Your task to perform on an android device: Open settings on Google Maps Image 0: 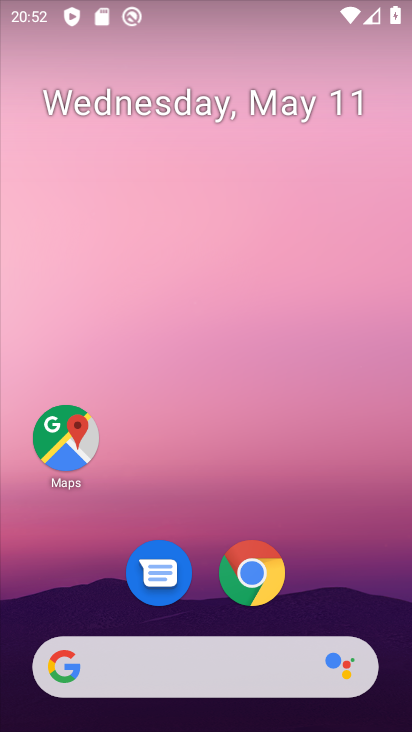
Step 0: click (73, 435)
Your task to perform on an android device: Open settings on Google Maps Image 1: 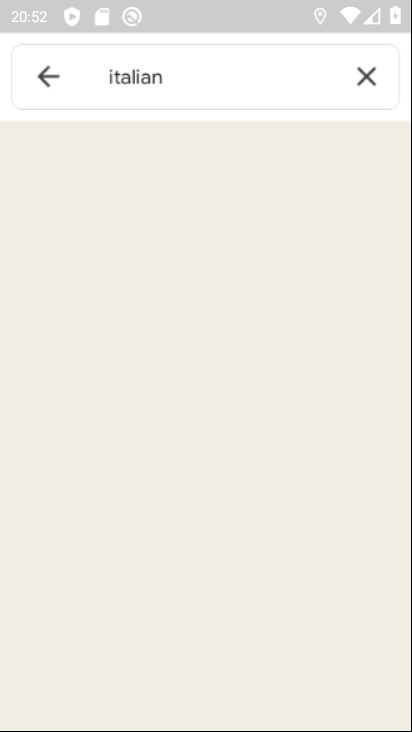
Step 1: click (358, 73)
Your task to perform on an android device: Open settings on Google Maps Image 2: 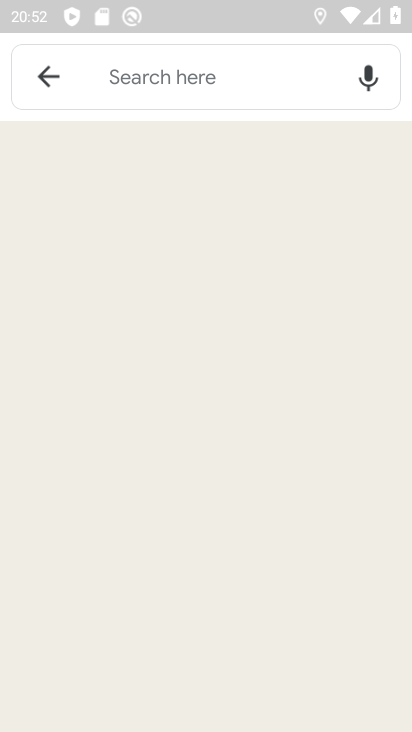
Step 2: click (31, 62)
Your task to perform on an android device: Open settings on Google Maps Image 3: 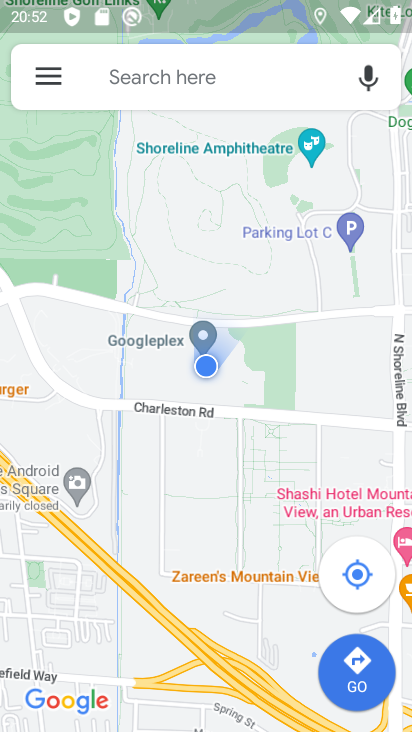
Step 3: click (62, 75)
Your task to perform on an android device: Open settings on Google Maps Image 4: 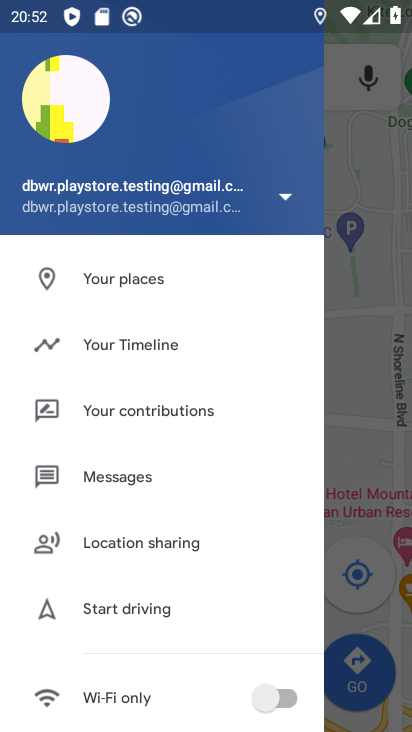
Step 4: drag from (129, 538) to (154, 224)
Your task to perform on an android device: Open settings on Google Maps Image 5: 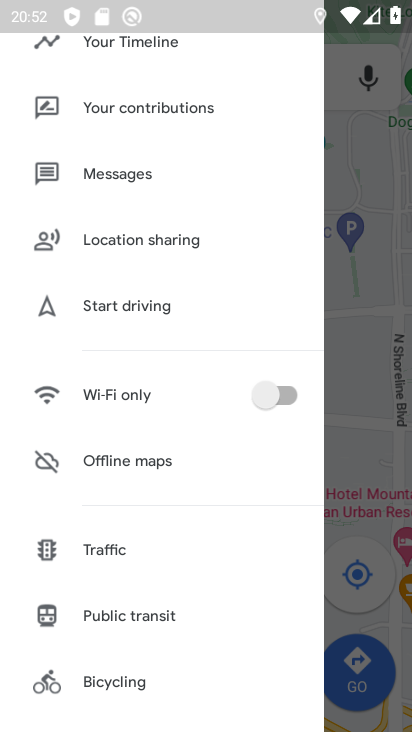
Step 5: drag from (129, 646) to (166, 386)
Your task to perform on an android device: Open settings on Google Maps Image 6: 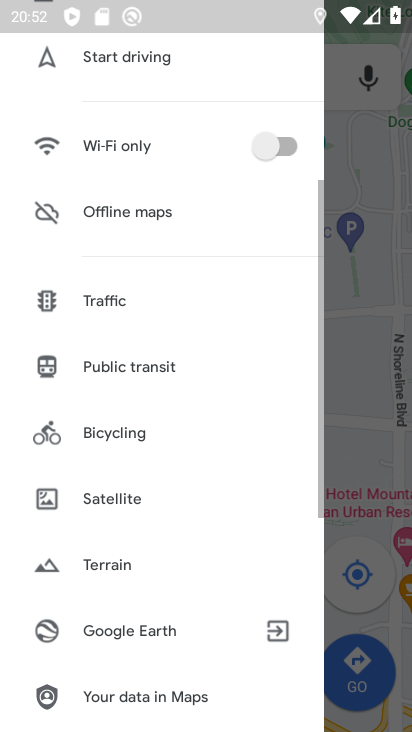
Step 6: drag from (152, 631) to (174, 469)
Your task to perform on an android device: Open settings on Google Maps Image 7: 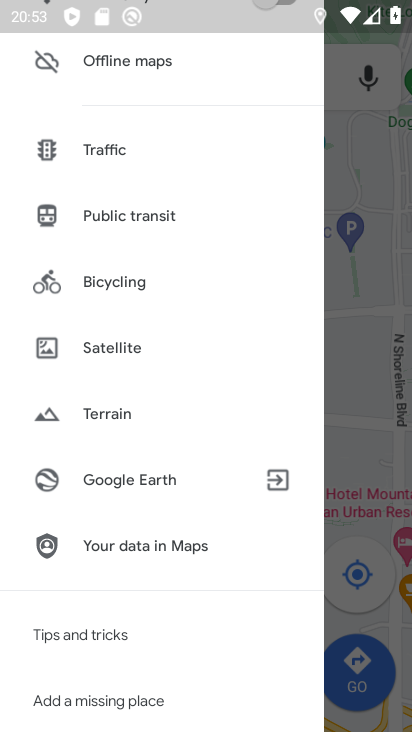
Step 7: drag from (124, 608) to (142, 280)
Your task to perform on an android device: Open settings on Google Maps Image 8: 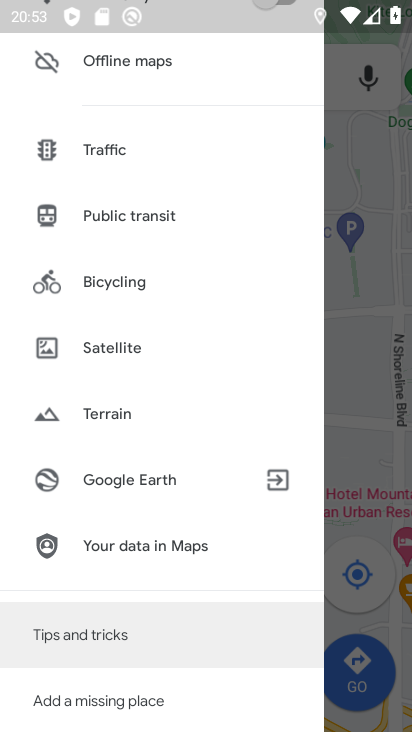
Step 8: drag from (142, 504) to (150, 427)
Your task to perform on an android device: Open settings on Google Maps Image 9: 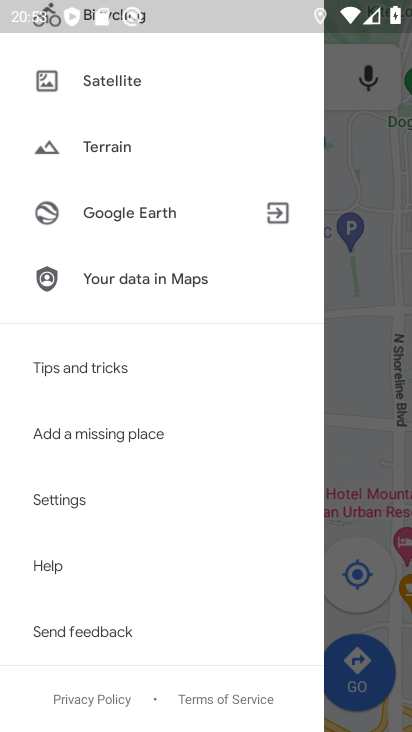
Step 9: click (143, 505)
Your task to perform on an android device: Open settings on Google Maps Image 10: 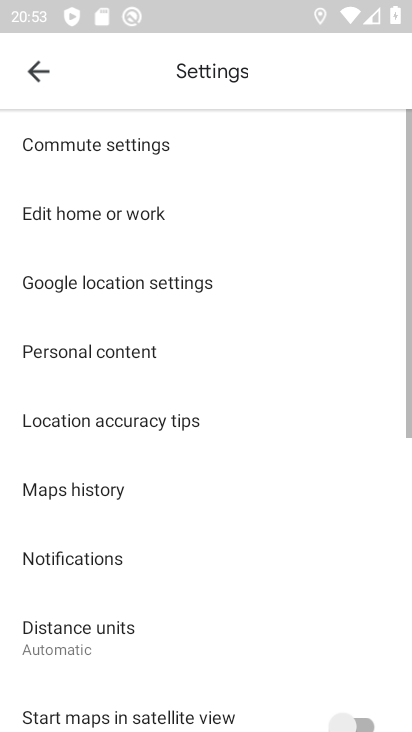
Step 10: task complete